Your task to perform on an android device: toggle pop-ups in chrome Image 0: 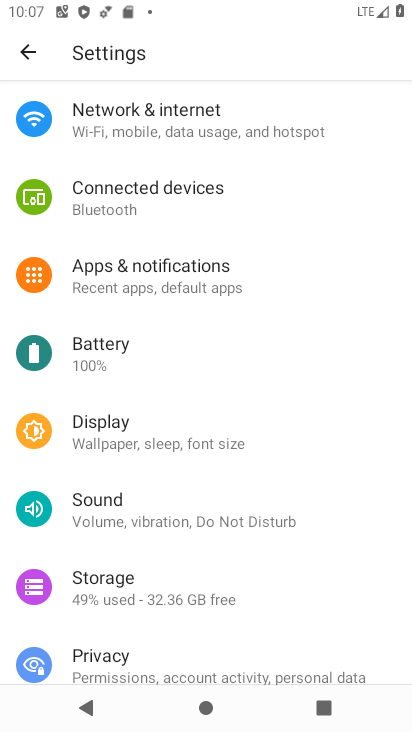
Step 0: press home button
Your task to perform on an android device: toggle pop-ups in chrome Image 1: 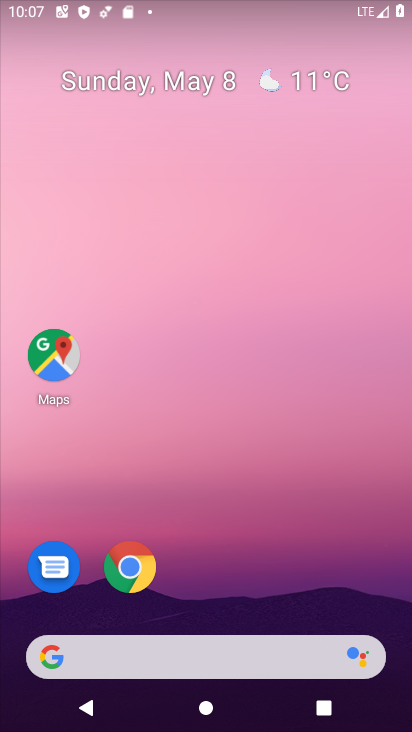
Step 1: click (125, 562)
Your task to perform on an android device: toggle pop-ups in chrome Image 2: 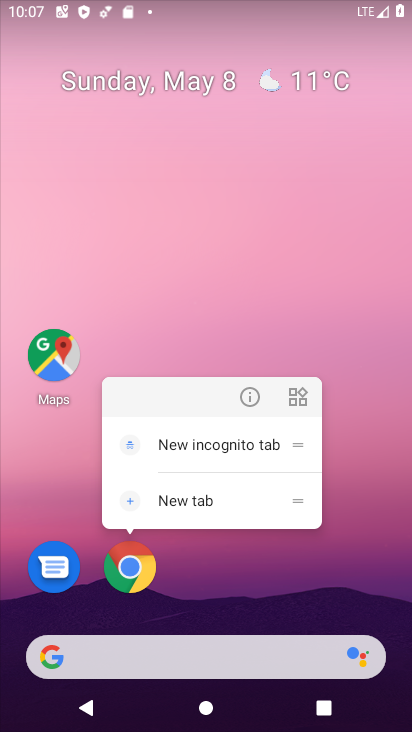
Step 2: click (134, 567)
Your task to perform on an android device: toggle pop-ups in chrome Image 3: 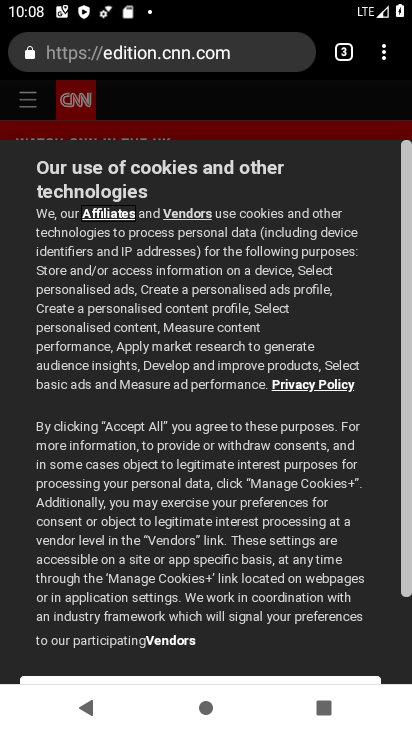
Step 3: drag from (393, 43) to (204, 602)
Your task to perform on an android device: toggle pop-ups in chrome Image 4: 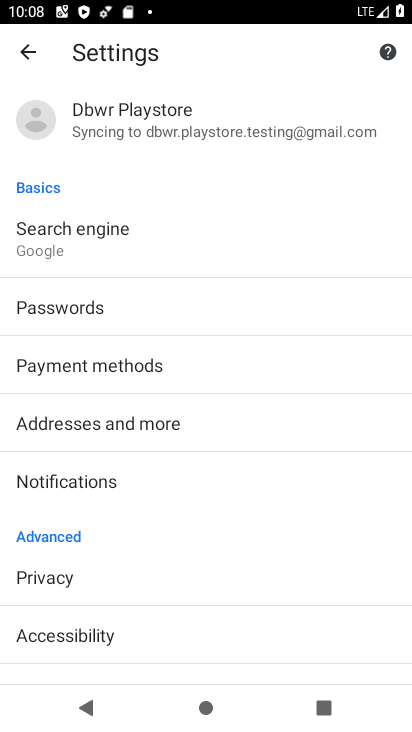
Step 4: drag from (134, 583) to (272, 127)
Your task to perform on an android device: toggle pop-ups in chrome Image 5: 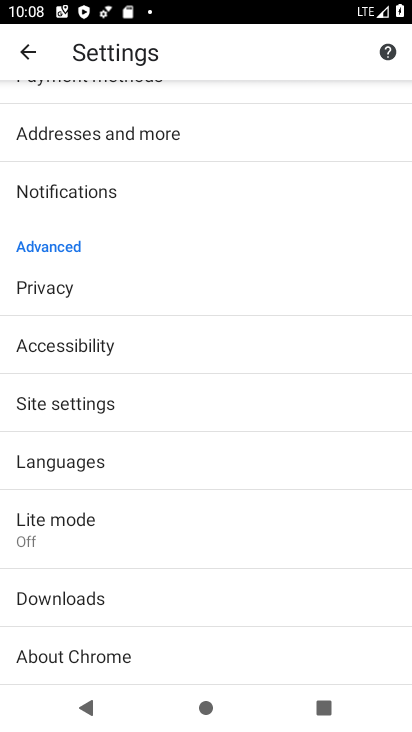
Step 5: click (78, 394)
Your task to perform on an android device: toggle pop-ups in chrome Image 6: 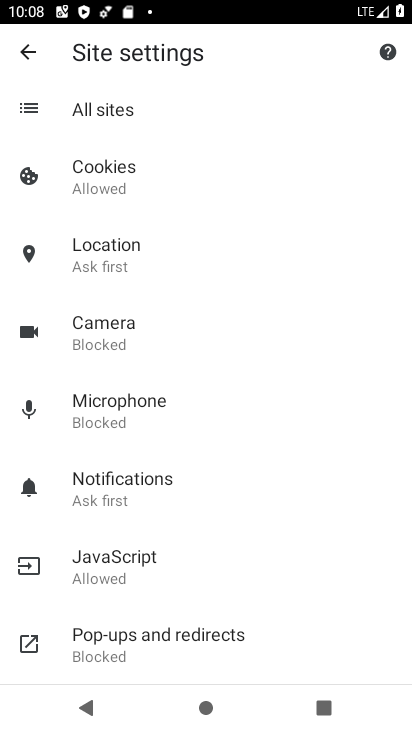
Step 6: click (136, 641)
Your task to perform on an android device: toggle pop-ups in chrome Image 7: 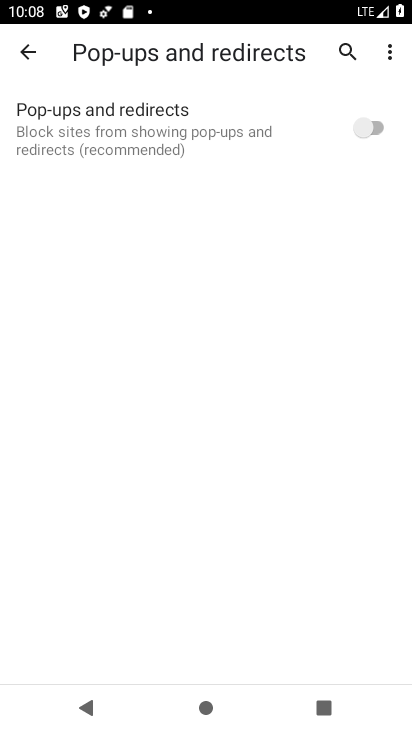
Step 7: click (361, 127)
Your task to perform on an android device: toggle pop-ups in chrome Image 8: 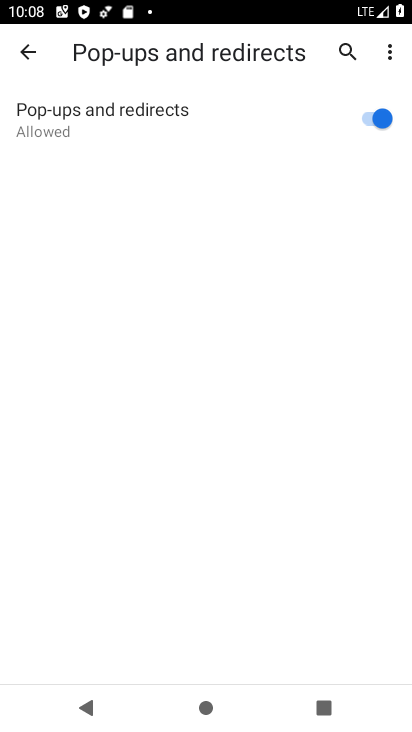
Step 8: task complete